Your task to perform on an android device: Open Chrome and go to settings Image 0: 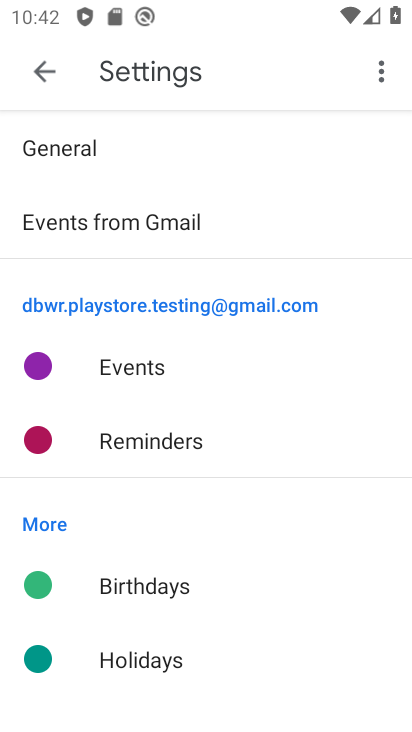
Step 0: press home button
Your task to perform on an android device: Open Chrome and go to settings Image 1: 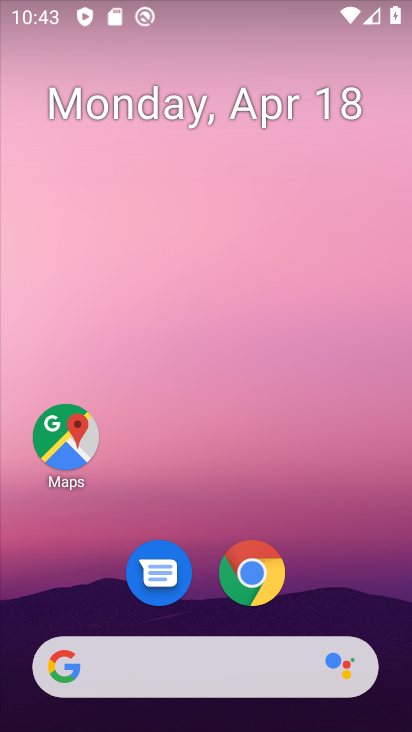
Step 1: click (258, 563)
Your task to perform on an android device: Open Chrome and go to settings Image 2: 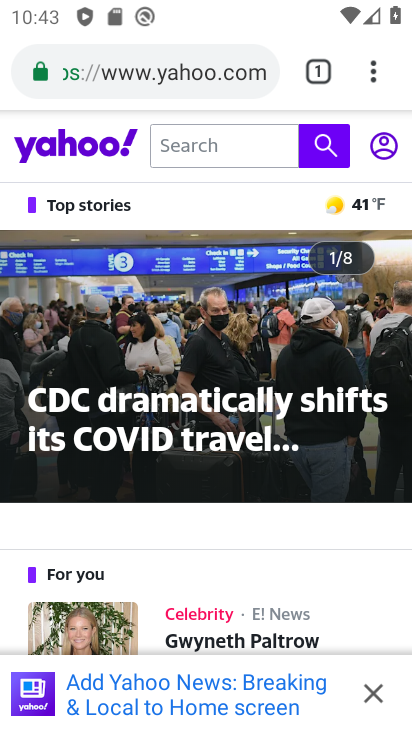
Step 2: click (368, 66)
Your task to perform on an android device: Open Chrome and go to settings Image 3: 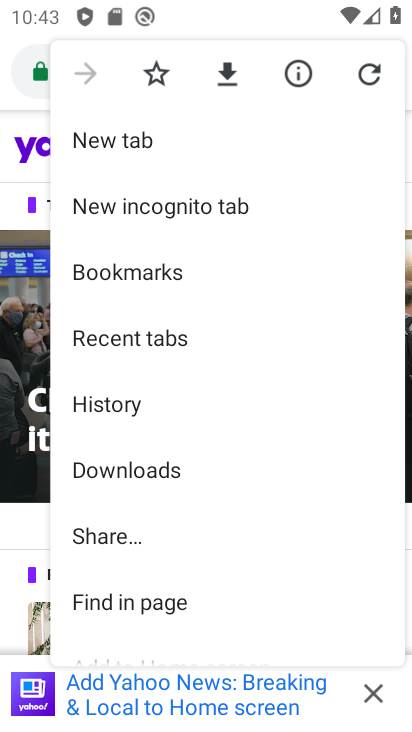
Step 3: drag from (195, 604) to (227, 256)
Your task to perform on an android device: Open Chrome and go to settings Image 4: 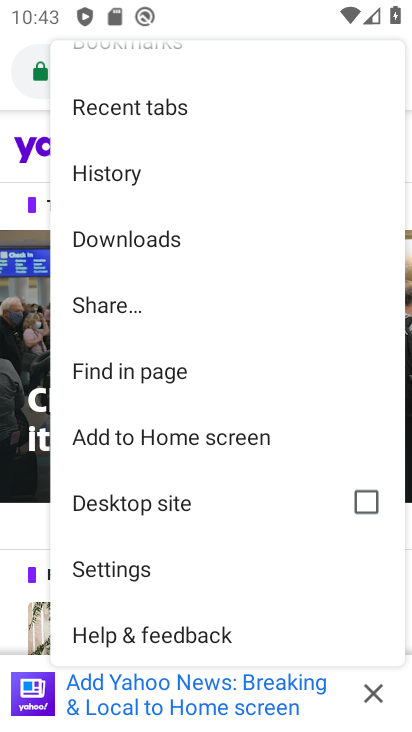
Step 4: click (124, 565)
Your task to perform on an android device: Open Chrome and go to settings Image 5: 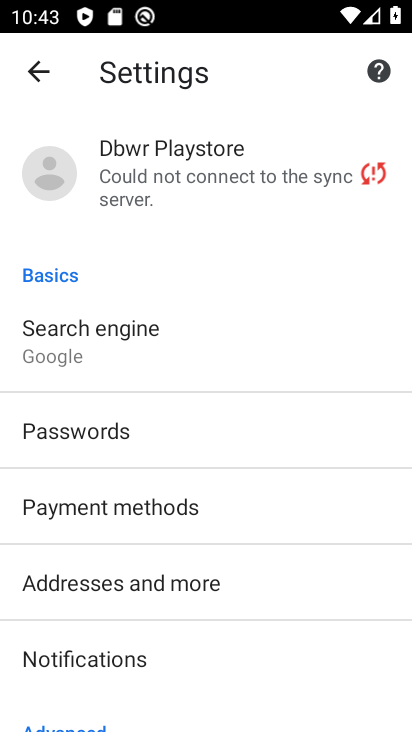
Step 5: task complete